Your task to perform on an android device: change the clock display to analog Image 0: 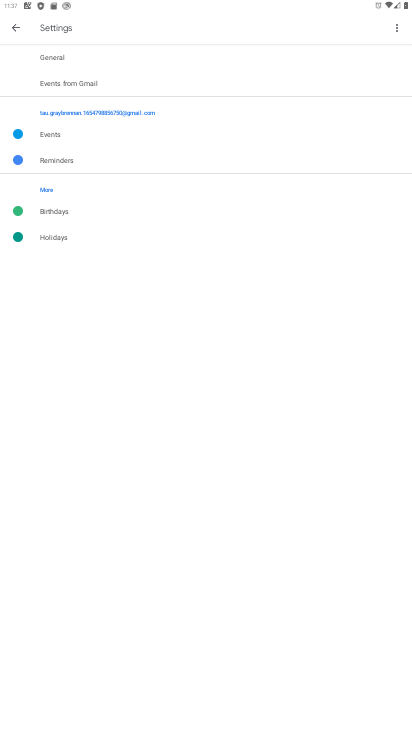
Step 0: press home button
Your task to perform on an android device: change the clock display to analog Image 1: 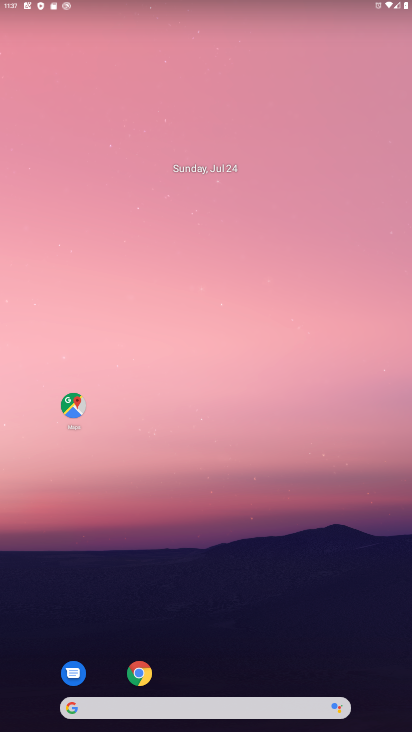
Step 1: drag from (321, 607) to (274, 123)
Your task to perform on an android device: change the clock display to analog Image 2: 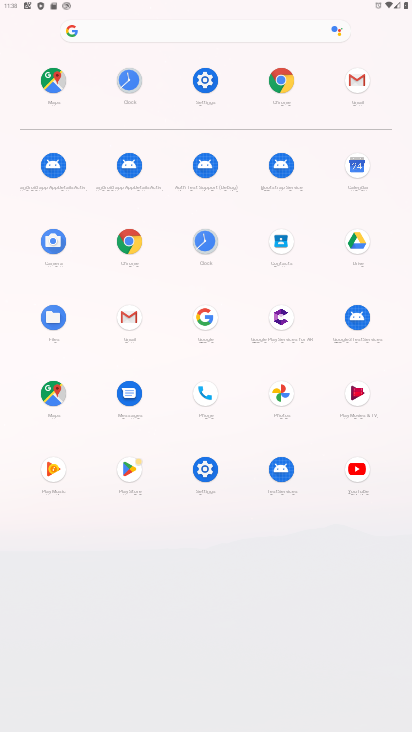
Step 2: click (207, 240)
Your task to perform on an android device: change the clock display to analog Image 3: 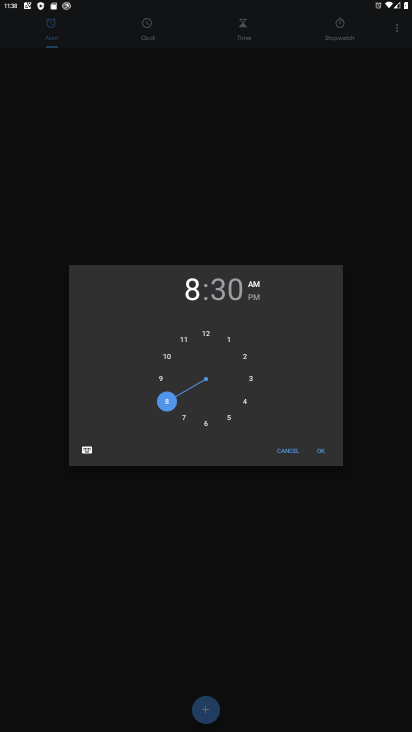
Step 3: click (284, 450)
Your task to perform on an android device: change the clock display to analog Image 4: 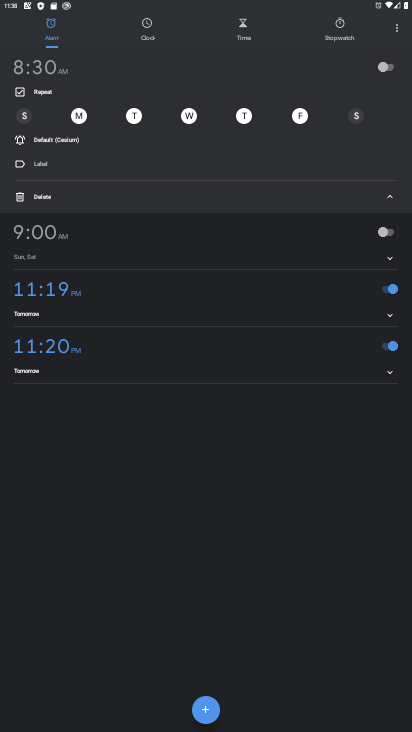
Step 4: click (398, 24)
Your task to perform on an android device: change the clock display to analog Image 5: 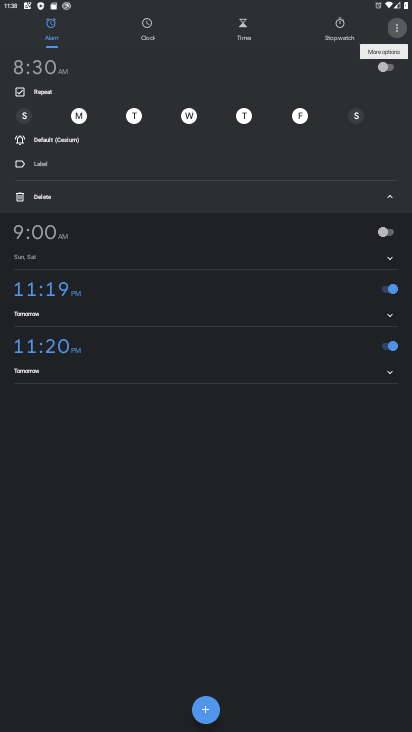
Step 5: click (398, 24)
Your task to perform on an android device: change the clock display to analog Image 6: 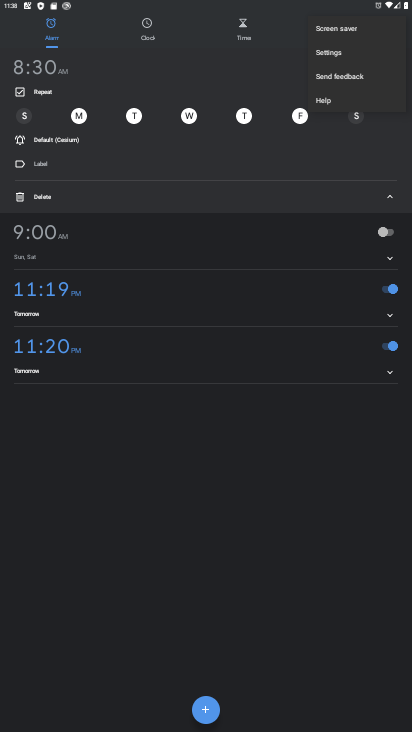
Step 6: click (341, 52)
Your task to perform on an android device: change the clock display to analog Image 7: 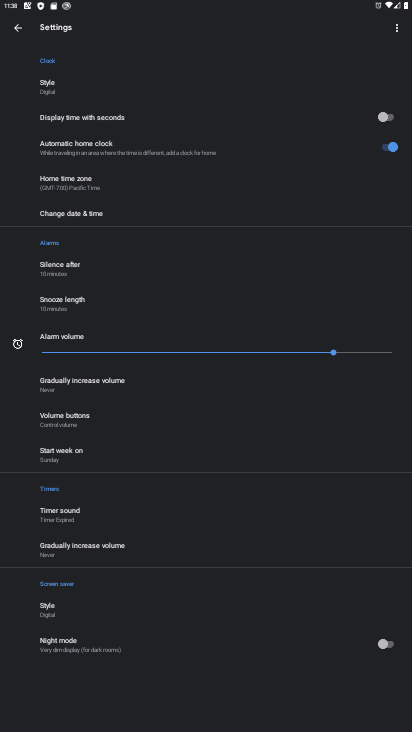
Step 7: click (55, 94)
Your task to perform on an android device: change the clock display to analog Image 8: 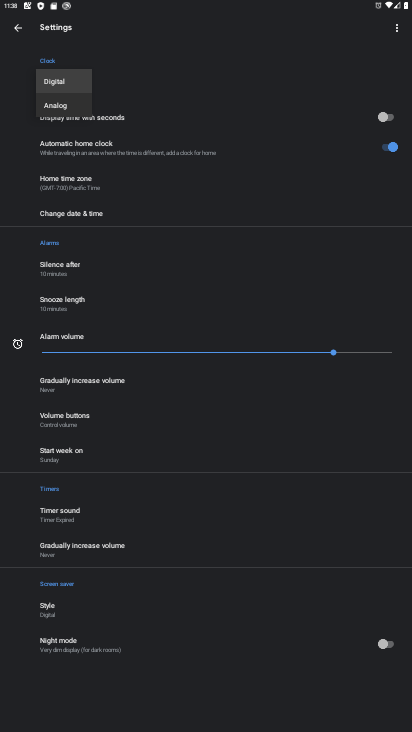
Step 8: click (74, 109)
Your task to perform on an android device: change the clock display to analog Image 9: 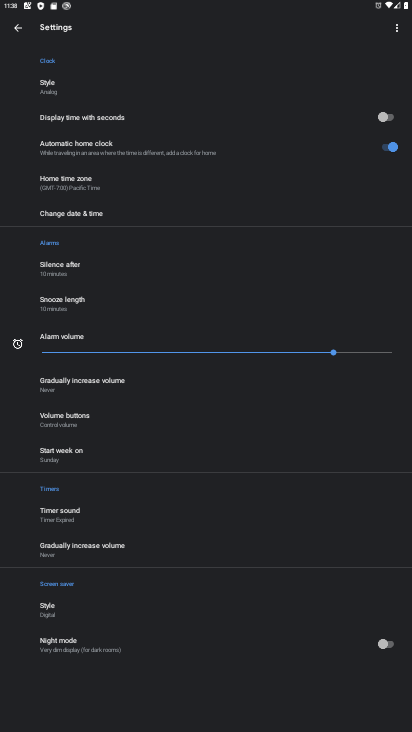
Step 9: task complete